Your task to perform on an android device: move an email to a new category in the gmail app Image 0: 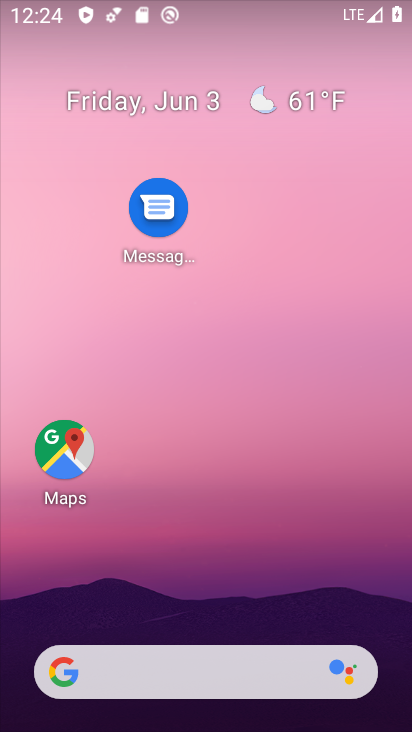
Step 0: drag from (217, 642) to (309, 37)
Your task to perform on an android device: move an email to a new category in the gmail app Image 1: 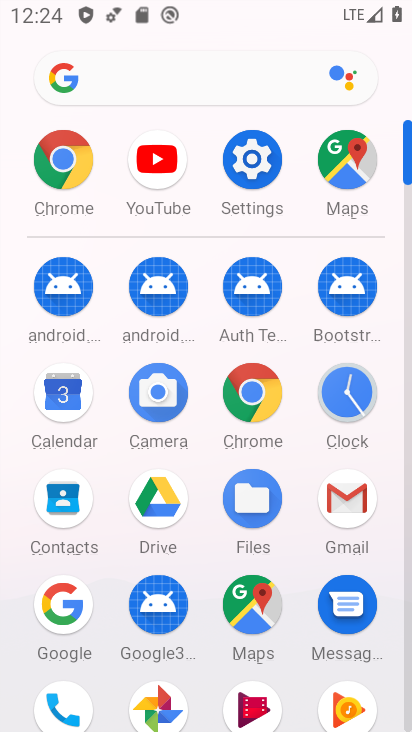
Step 1: click (360, 493)
Your task to perform on an android device: move an email to a new category in the gmail app Image 2: 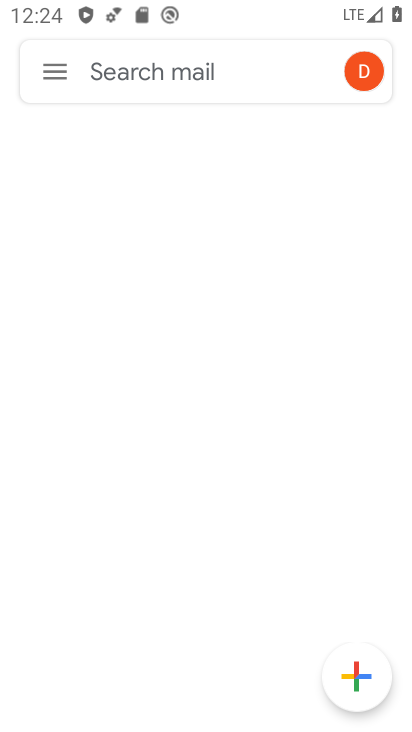
Step 2: click (42, 70)
Your task to perform on an android device: move an email to a new category in the gmail app Image 3: 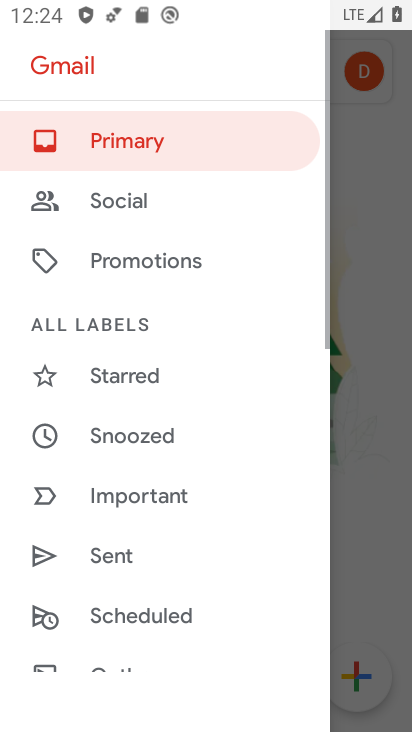
Step 3: task complete